Your task to perform on an android device: see creations saved in the google photos Image 0: 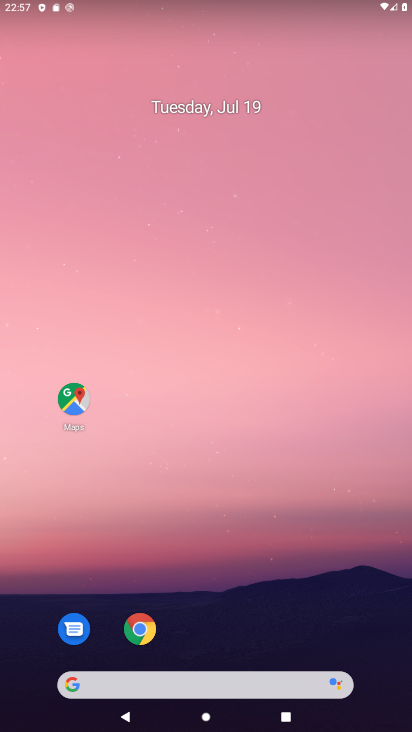
Step 0: press home button
Your task to perform on an android device: see creations saved in the google photos Image 1: 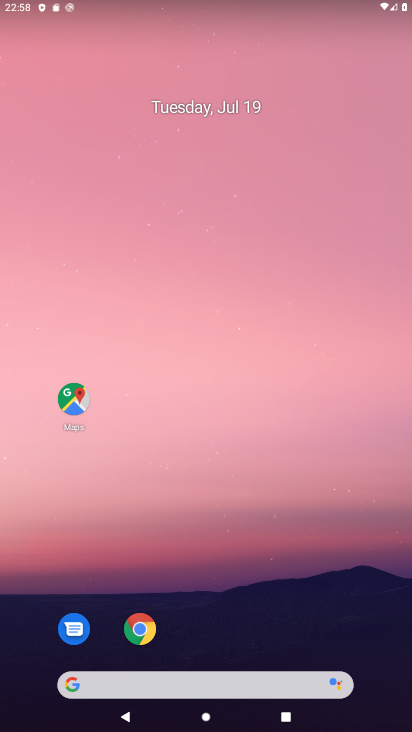
Step 1: drag from (240, 226) to (241, 99)
Your task to perform on an android device: see creations saved in the google photos Image 2: 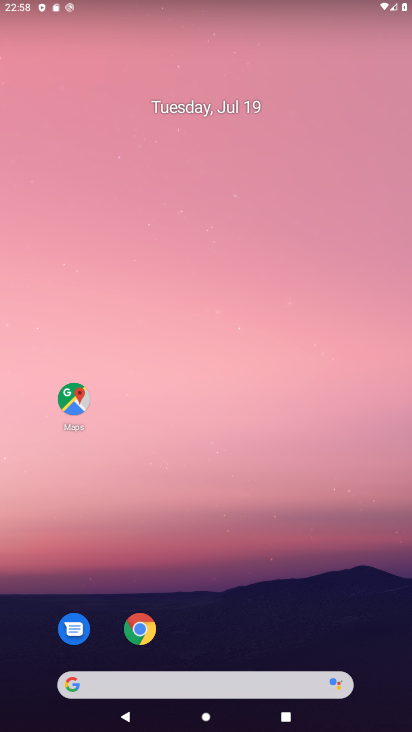
Step 2: drag from (222, 647) to (267, 23)
Your task to perform on an android device: see creations saved in the google photos Image 3: 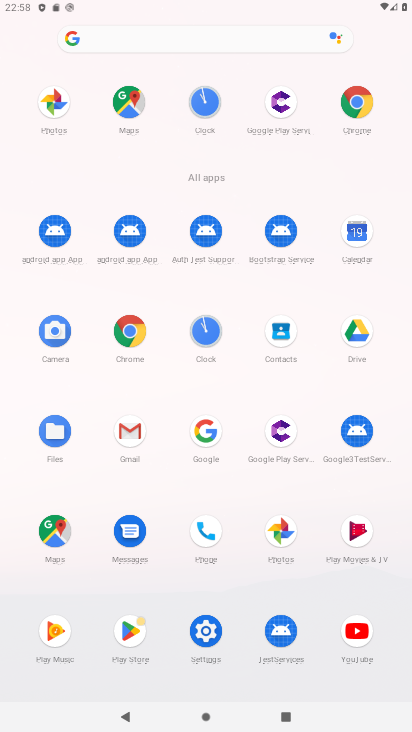
Step 3: click (278, 526)
Your task to perform on an android device: see creations saved in the google photos Image 4: 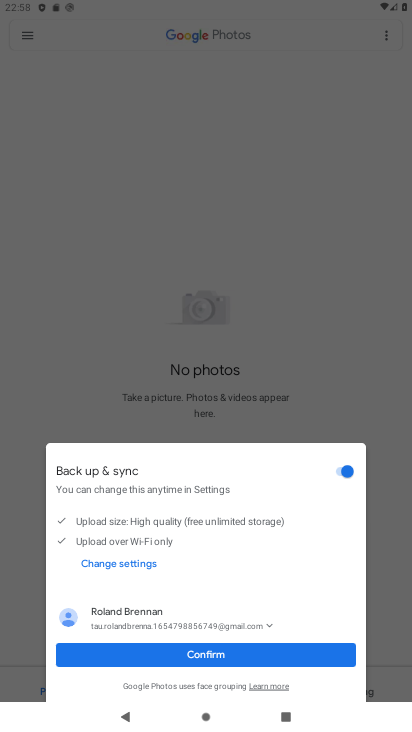
Step 4: click (199, 656)
Your task to perform on an android device: see creations saved in the google photos Image 5: 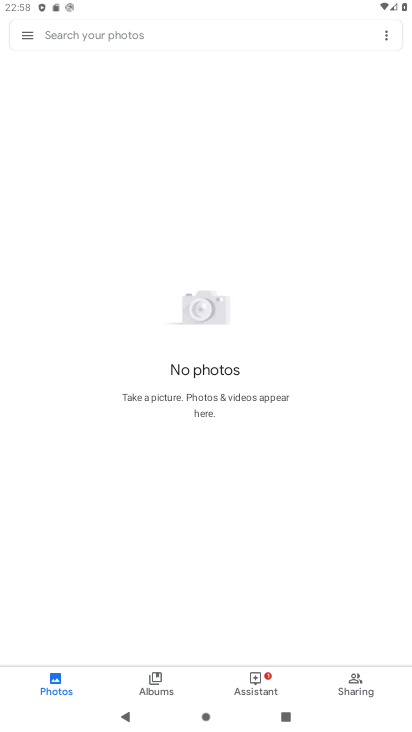
Step 5: click (71, 32)
Your task to perform on an android device: see creations saved in the google photos Image 6: 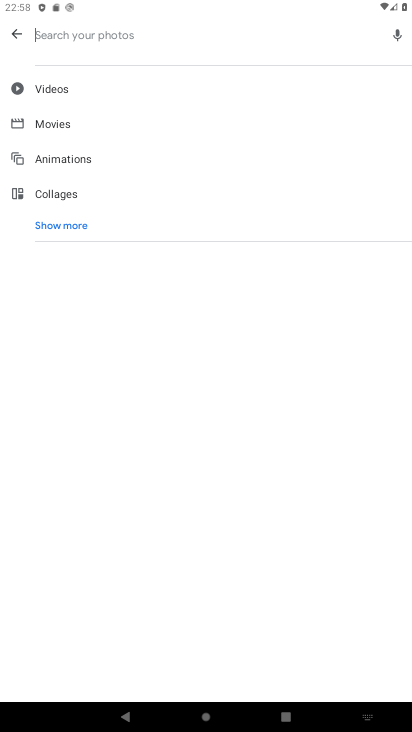
Step 6: click (62, 227)
Your task to perform on an android device: see creations saved in the google photos Image 7: 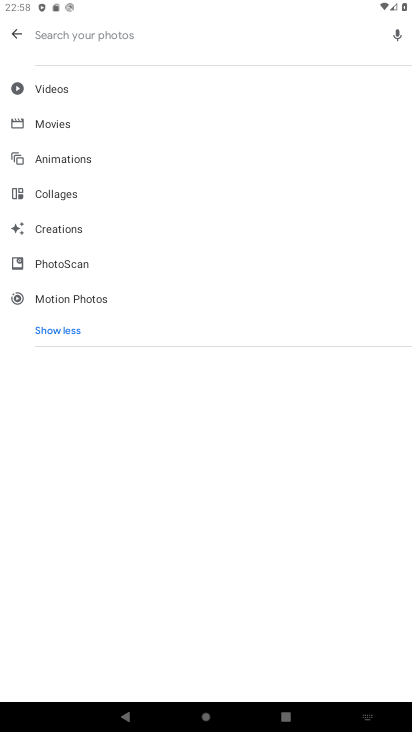
Step 7: click (86, 229)
Your task to perform on an android device: see creations saved in the google photos Image 8: 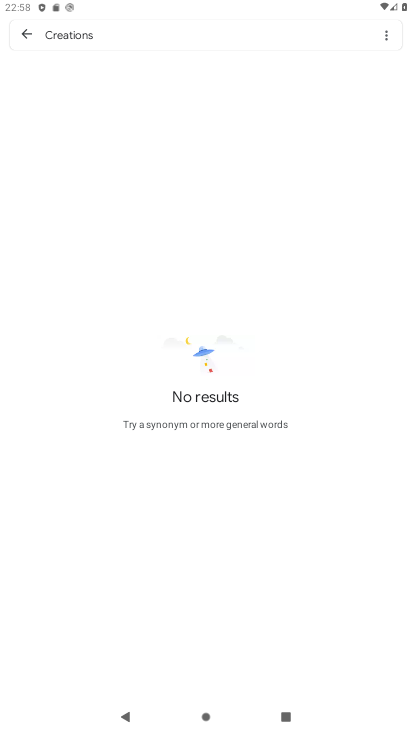
Step 8: task complete